Your task to perform on an android device: Go to battery settings Image 0: 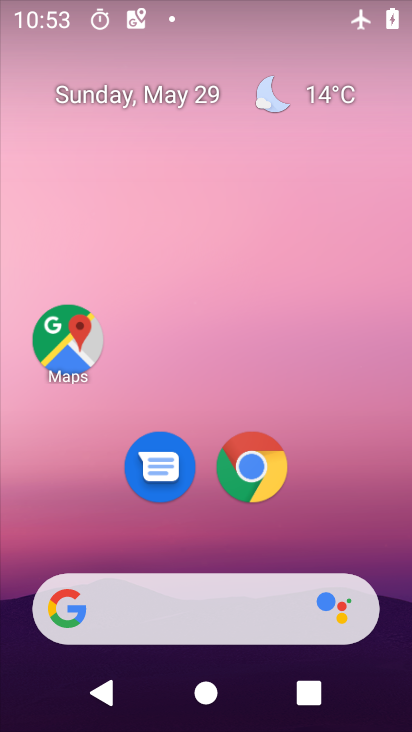
Step 0: drag from (185, 538) to (189, 123)
Your task to perform on an android device: Go to battery settings Image 1: 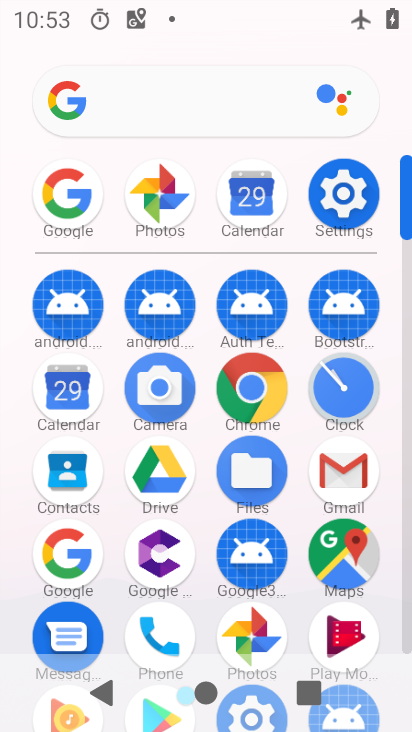
Step 1: click (339, 194)
Your task to perform on an android device: Go to battery settings Image 2: 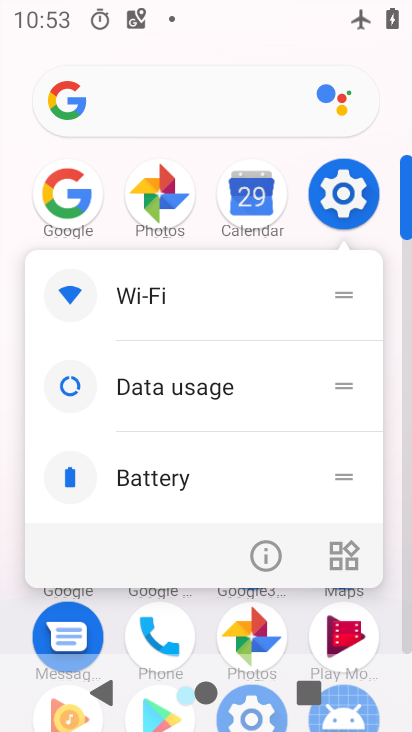
Step 2: click (338, 190)
Your task to perform on an android device: Go to battery settings Image 3: 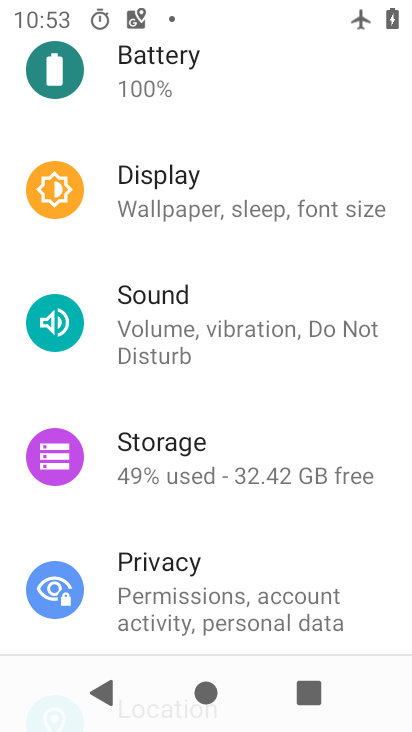
Step 3: click (225, 86)
Your task to perform on an android device: Go to battery settings Image 4: 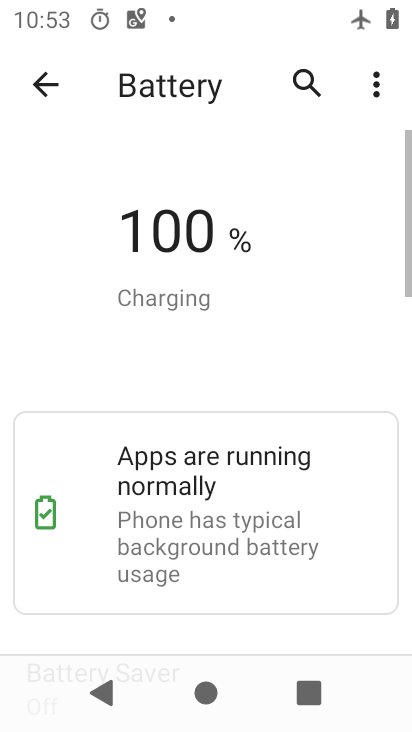
Step 4: task complete